Your task to perform on an android device: Open my contact list Image 0: 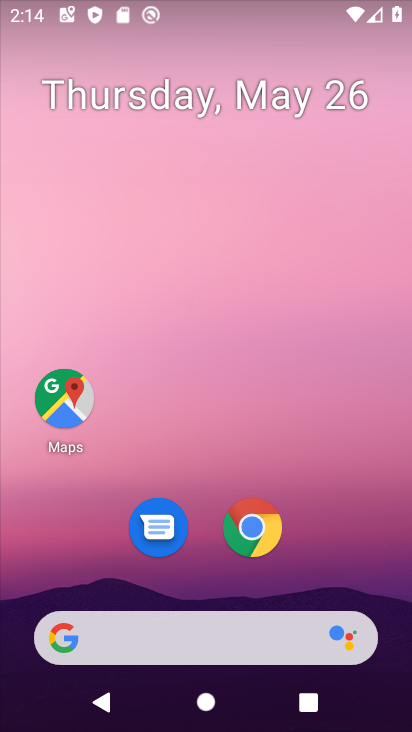
Step 0: drag from (233, 392) to (245, 31)
Your task to perform on an android device: Open my contact list Image 1: 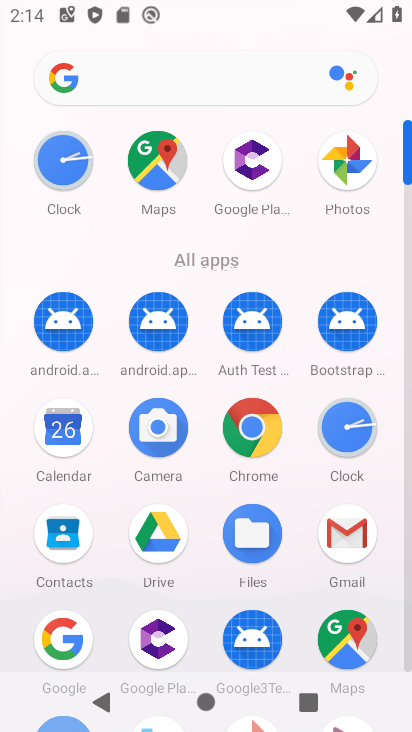
Step 1: click (54, 533)
Your task to perform on an android device: Open my contact list Image 2: 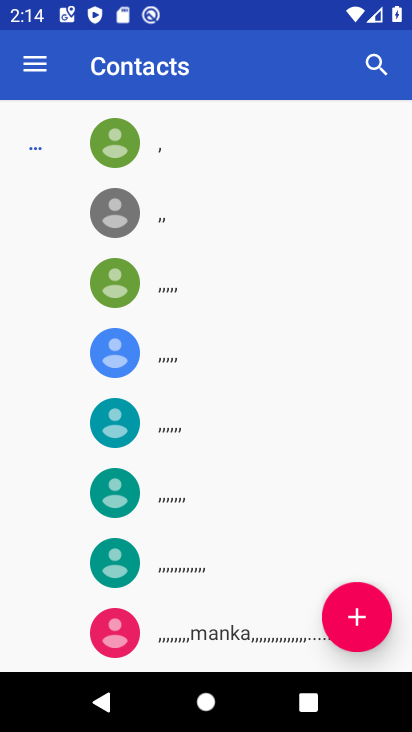
Step 2: task complete